Your task to perform on an android device: turn on location history Image 0: 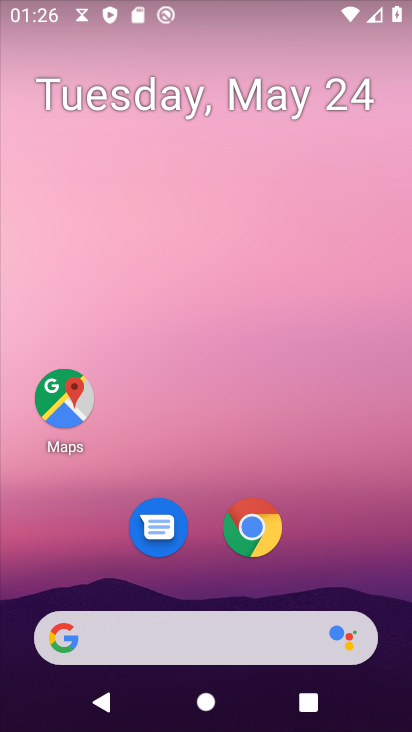
Step 0: press home button
Your task to perform on an android device: turn on location history Image 1: 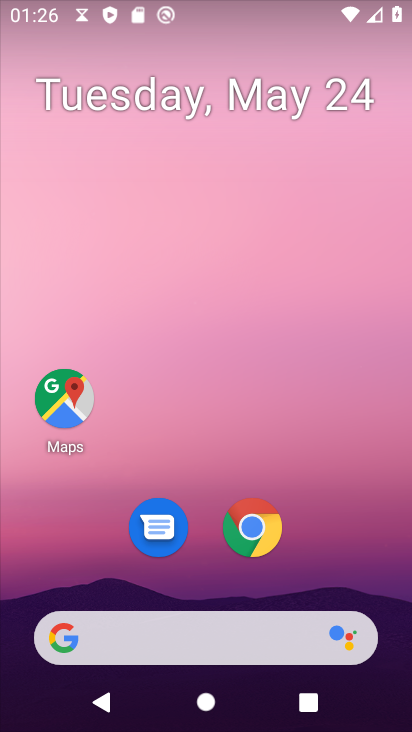
Step 1: click (60, 401)
Your task to perform on an android device: turn on location history Image 2: 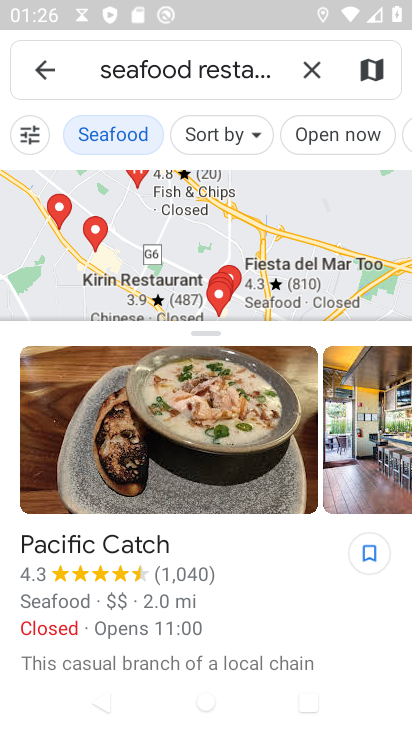
Step 2: click (44, 71)
Your task to perform on an android device: turn on location history Image 3: 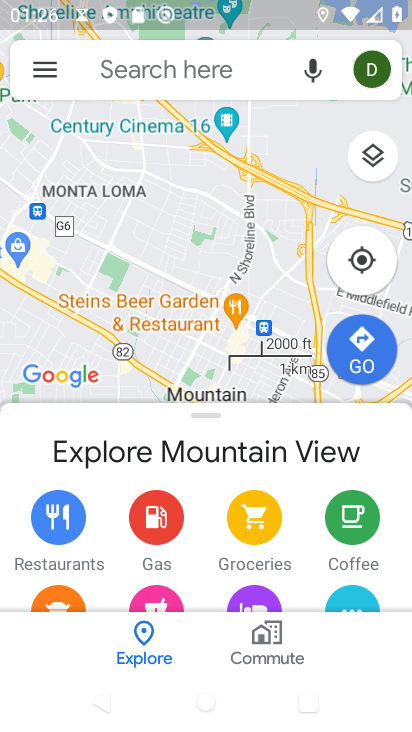
Step 3: click (44, 70)
Your task to perform on an android device: turn on location history Image 4: 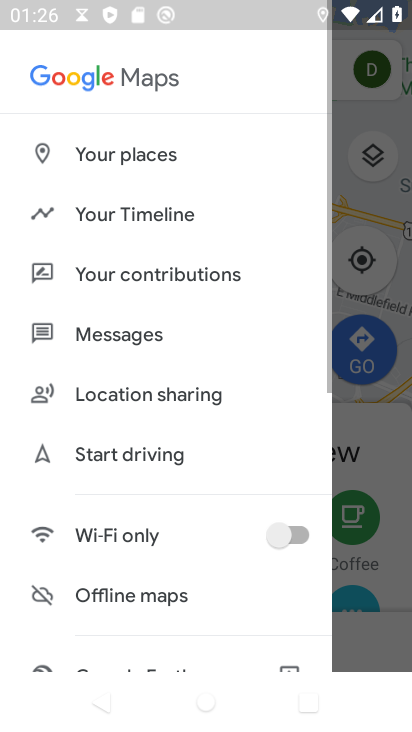
Step 4: click (111, 213)
Your task to perform on an android device: turn on location history Image 5: 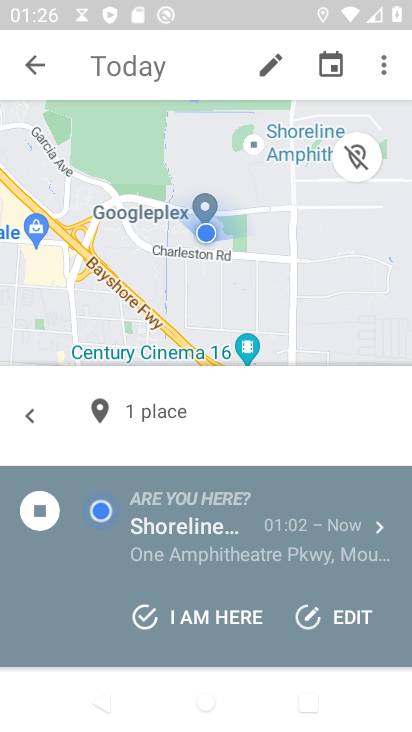
Step 5: click (381, 63)
Your task to perform on an android device: turn on location history Image 6: 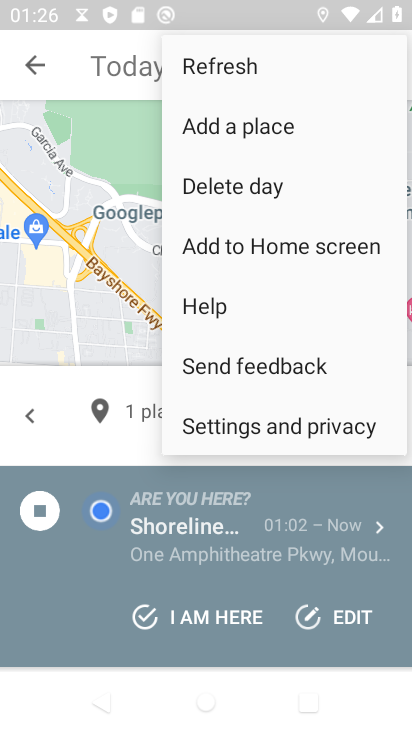
Step 6: click (250, 432)
Your task to perform on an android device: turn on location history Image 7: 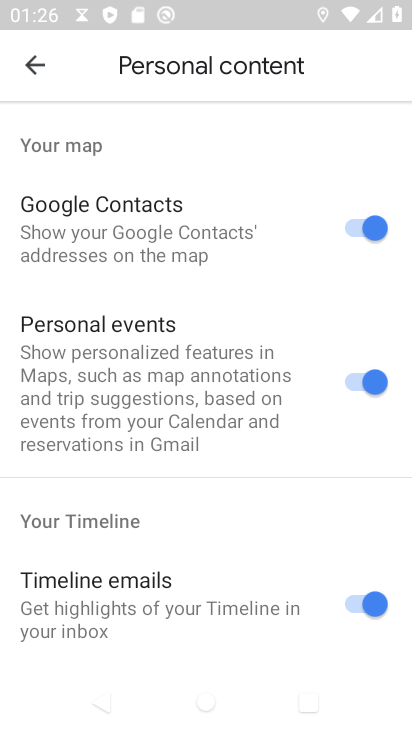
Step 7: drag from (161, 623) to (278, 112)
Your task to perform on an android device: turn on location history Image 8: 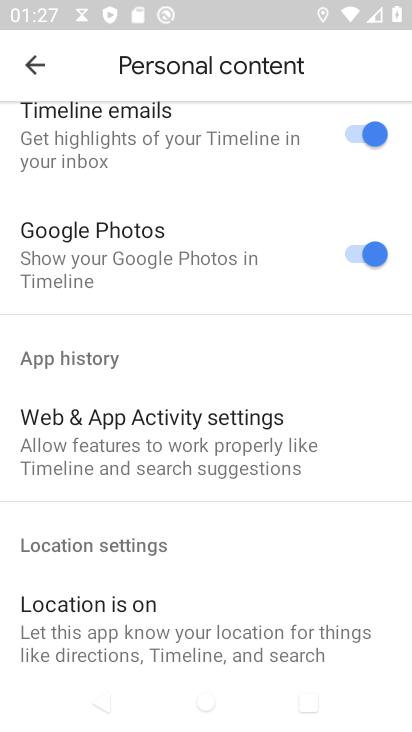
Step 8: drag from (183, 592) to (271, 166)
Your task to perform on an android device: turn on location history Image 9: 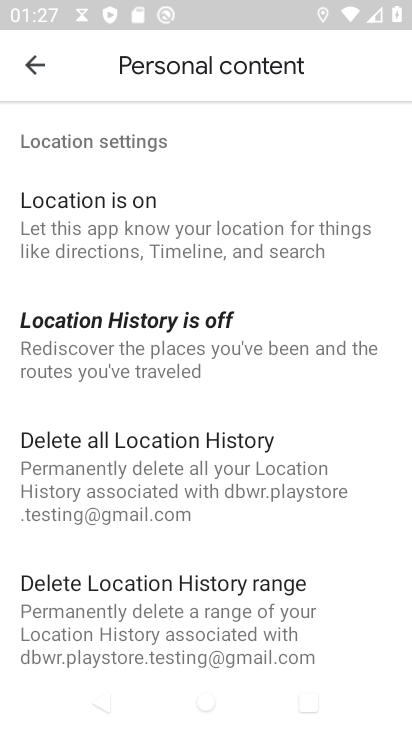
Step 9: click (154, 354)
Your task to perform on an android device: turn on location history Image 10: 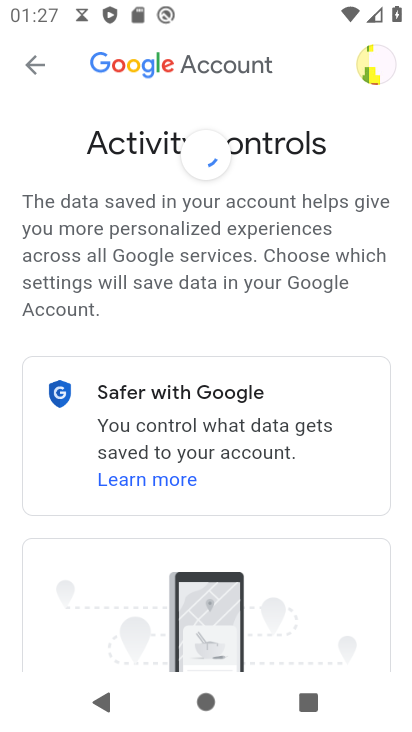
Step 10: drag from (100, 588) to (243, 134)
Your task to perform on an android device: turn on location history Image 11: 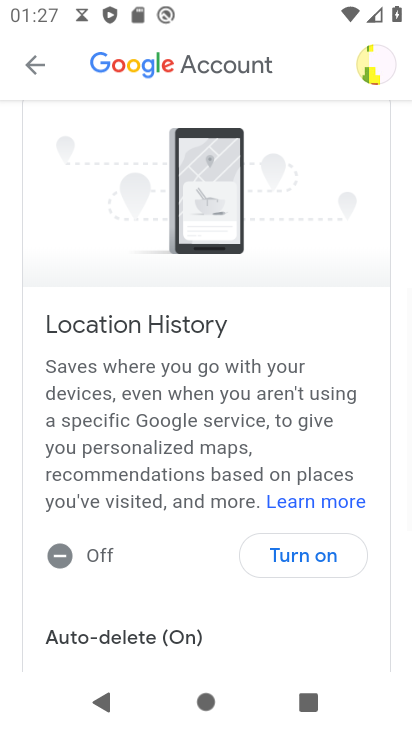
Step 11: drag from (184, 591) to (284, 213)
Your task to perform on an android device: turn on location history Image 12: 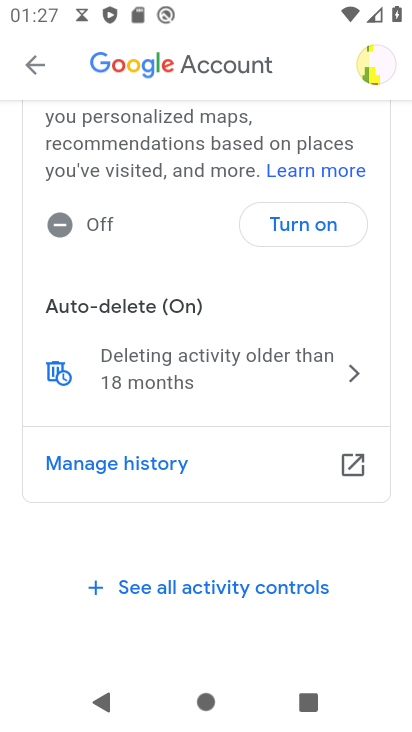
Step 12: click (306, 220)
Your task to perform on an android device: turn on location history Image 13: 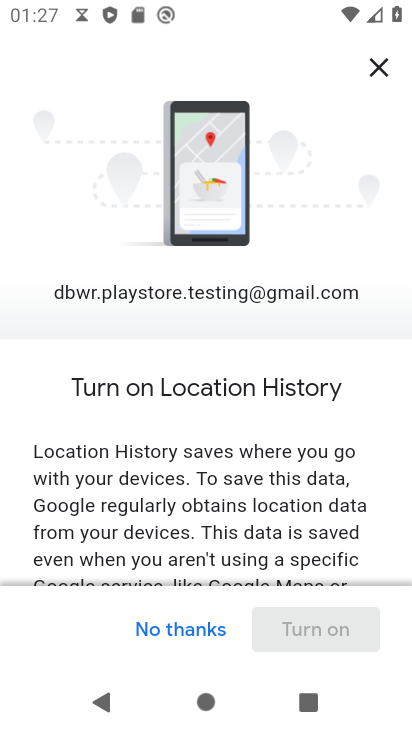
Step 13: drag from (201, 507) to (300, 95)
Your task to perform on an android device: turn on location history Image 14: 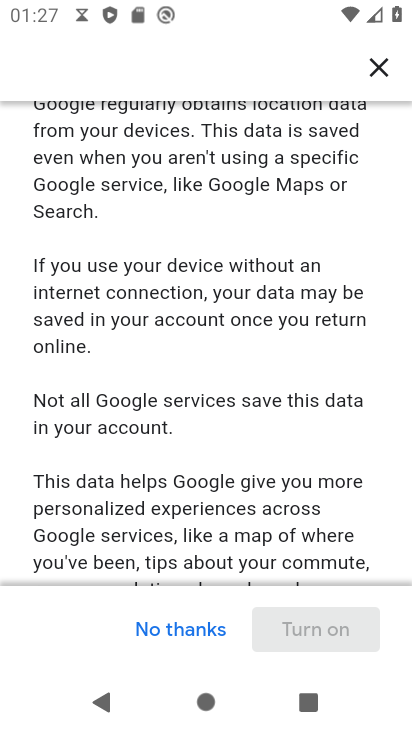
Step 14: drag from (209, 515) to (312, 150)
Your task to perform on an android device: turn on location history Image 15: 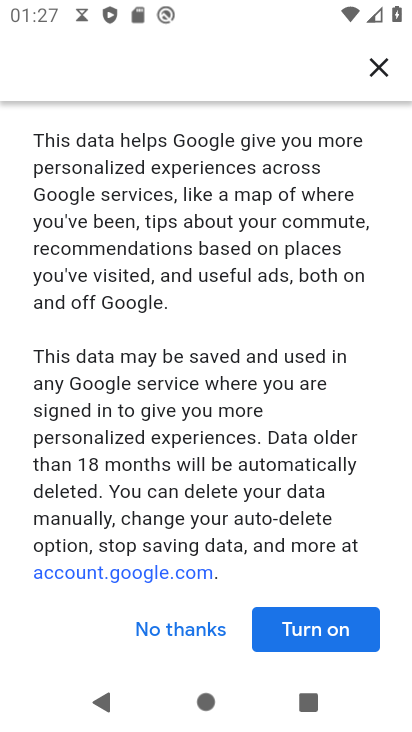
Step 15: drag from (315, 249) to (346, 124)
Your task to perform on an android device: turn on location history Image 16: 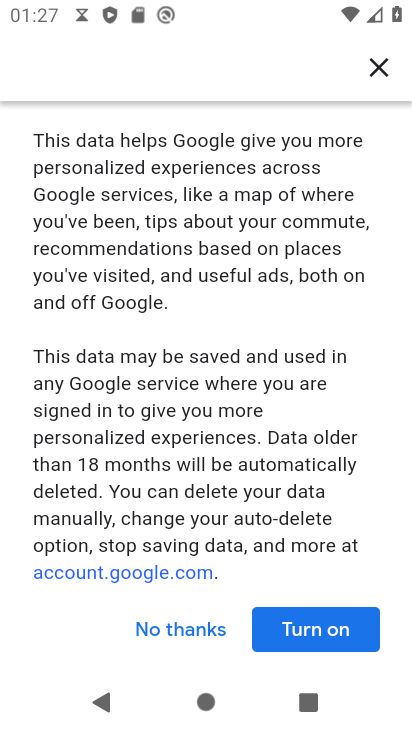
Step 16: click (316, 626)
Your task to perform on an android device: turn on location history Image 17: 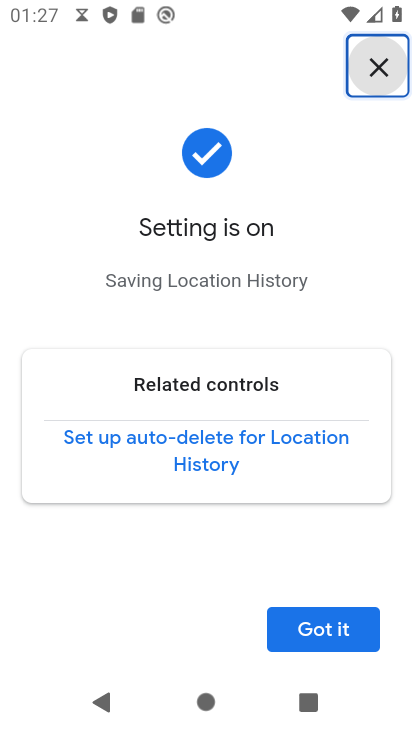
Step 17: click (316, 623)
Your task to perform on an android device: turn on location history Image 18: 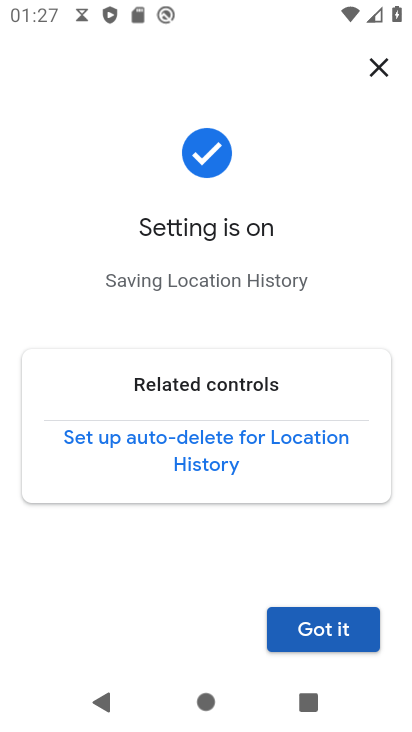
Step 18: click (327, 629)
Your task to perform on an android device: turn on location history Image 19: 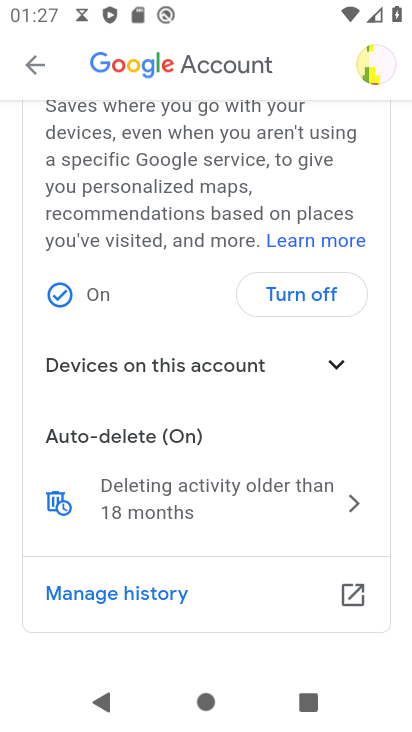
Step 19: task complete